Your task to perform on an android device: manage bookmarks in the chrome app Image 0: 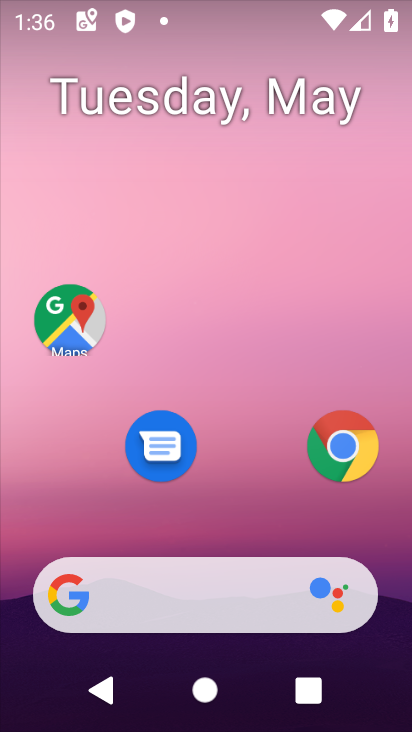
Step 0: drag from (230, 550) to (233, 34)
Your task to perform on an android device: manage bookmarks in the chrome app Image 1: 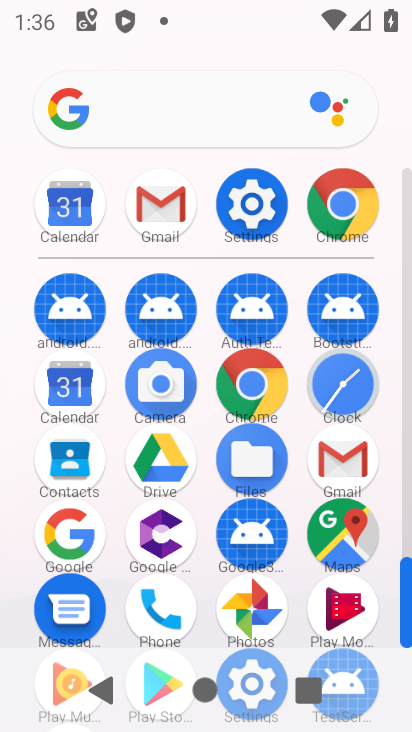
Step 1: click (268, 395)
Your task to perform on an android device: manage bookmarks in the chrome app Image 2: 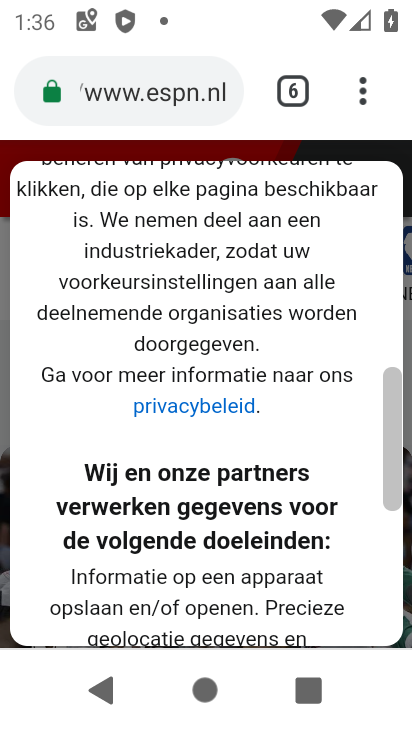
Step 2: task complete